Your task to perform on an android device: uninstall "Booking.com: Hotels and more" Image 0: 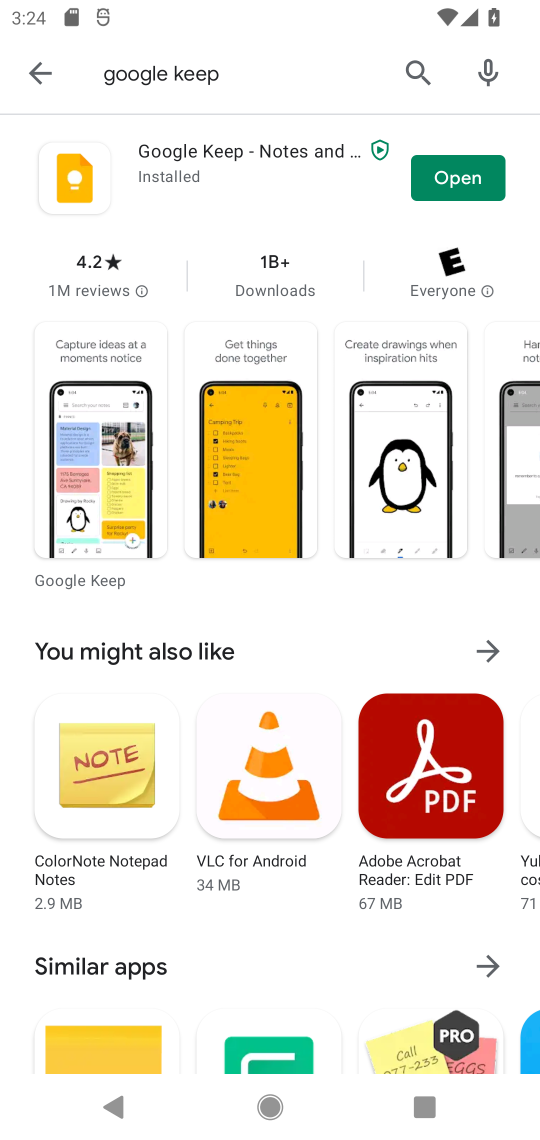
Step 0: click (51, 59)
Your task to perform on an android device: uninstall "Booking.com: Hotels and more" Image 1: 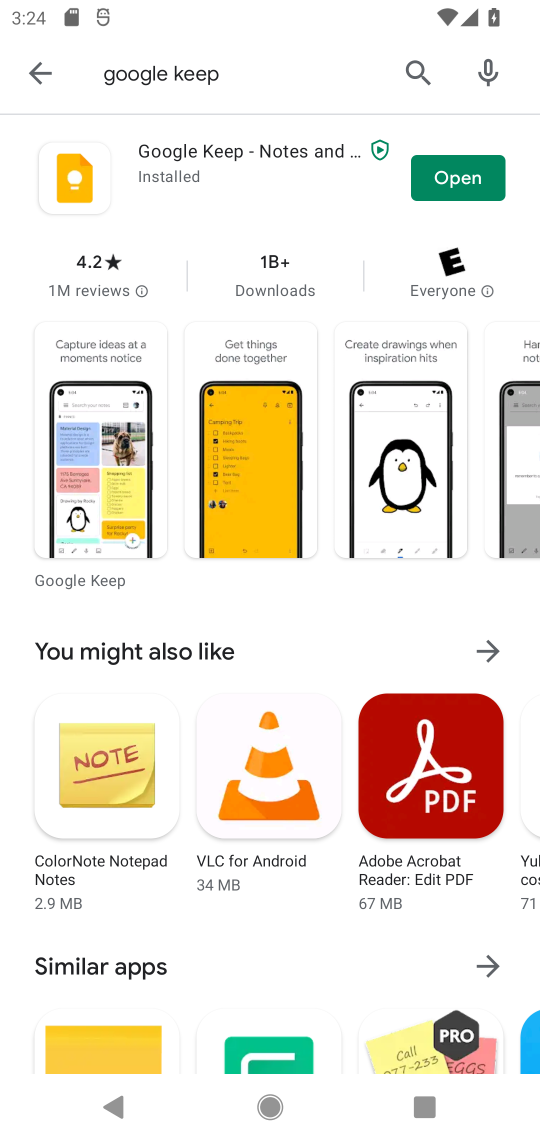
Step 1: click (26, 77)
Your task to perform on an android device: uninstall "Booking.com: Hotels and more" Image 2: 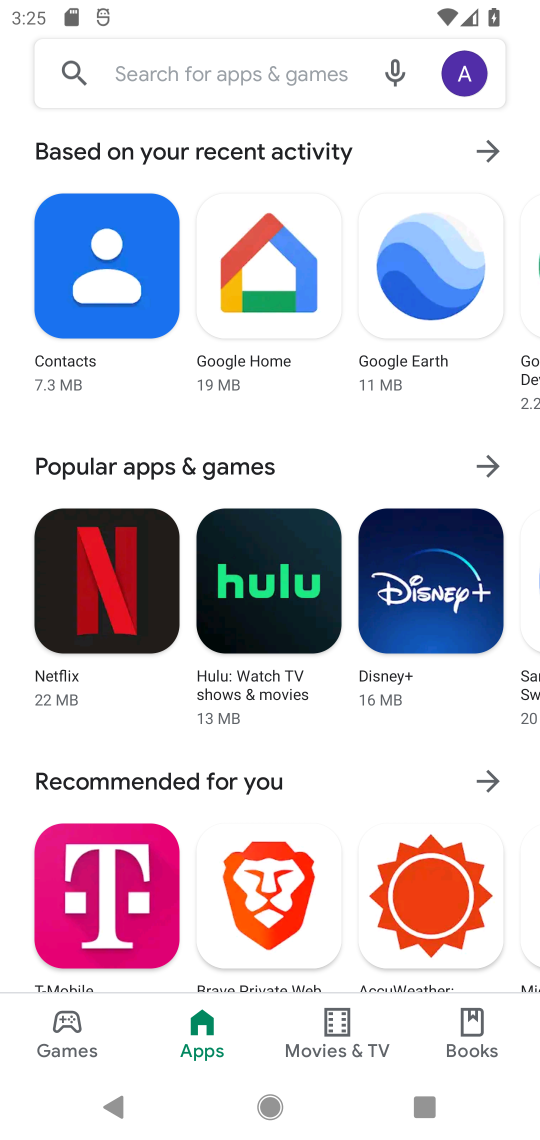
Step 2: click (158, 72)
Your task to perform on an android device: uninstall "Booking.com: Hotels and more" Image 3: 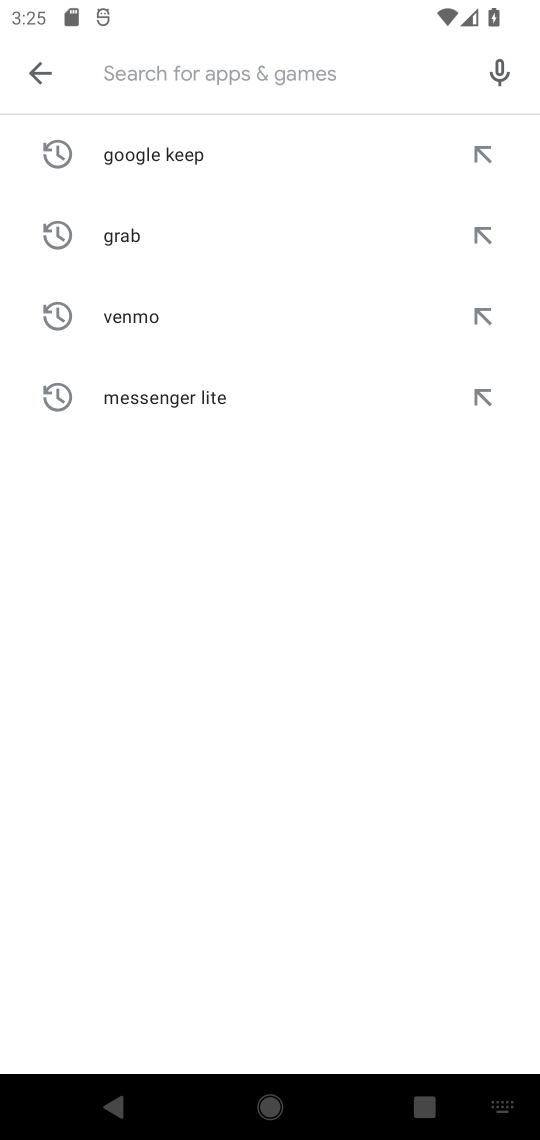
Step 3: type "Booking.com"
Your task to perform on an android device: uninstall "Booking.com: Hotels and more" Image 4: 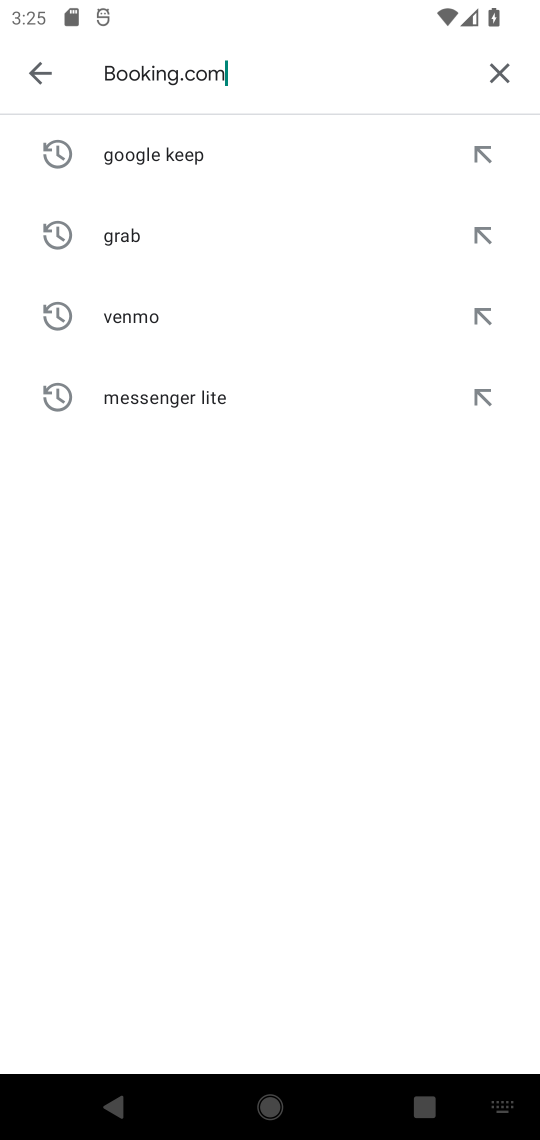
Step 4: type ""
Your task to perform on an android device: uninstall "Booking.com: Hotels and more" Image 5: 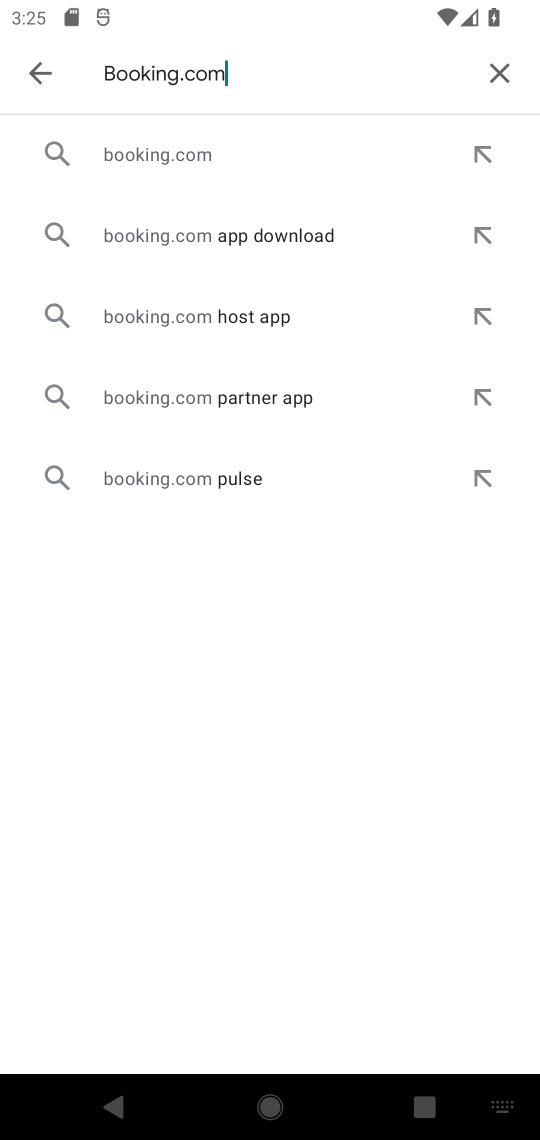
Step 5: click (302, 171)
Your task to perform on an android device: uninstall "Booking.com: Hotels and more" Image 6: 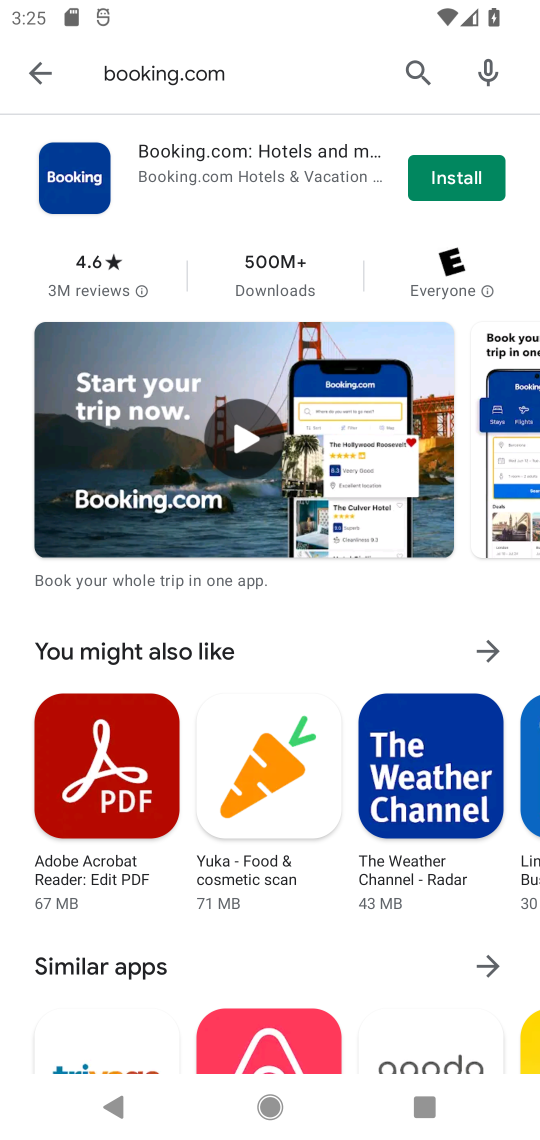
Step 6: task complete